Your task to perform on an android device: Go to Reddit.com Image 0: 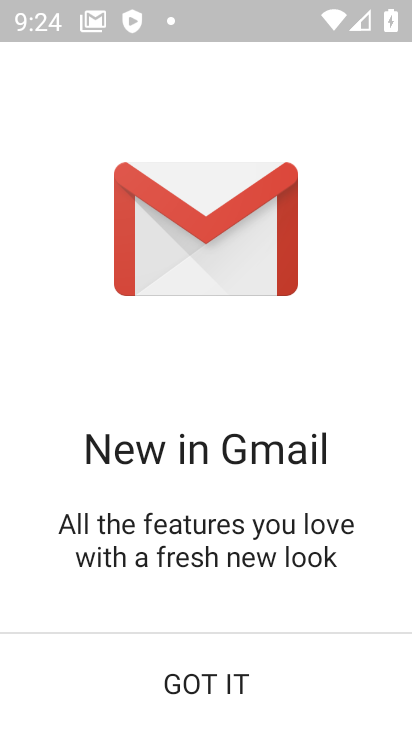
Step 0: press home button
Your task to perform on an android device: Go to Reddit.com Image 1: 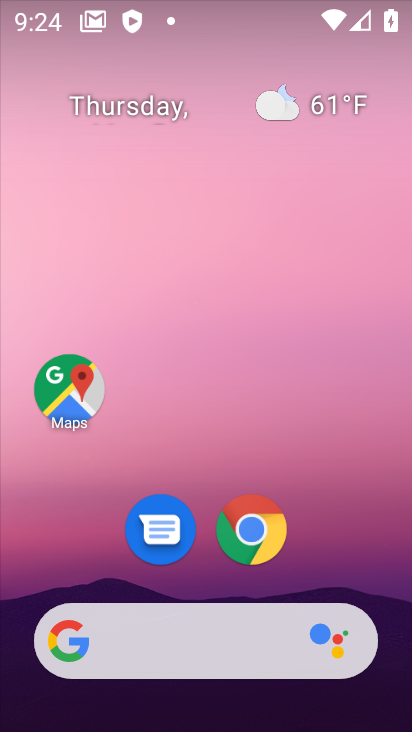
Step 1: click (262, 523)
Your task to perform on an android device: Go to Reddit.com Image 2: 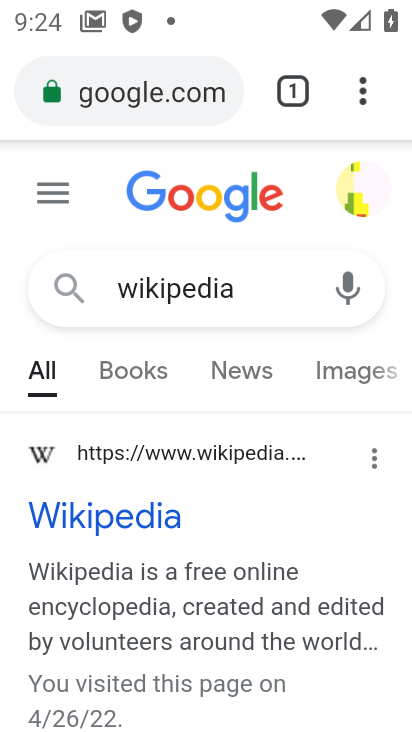
Step 2: click (252, 277)
Your task to perform on an android device: Go to Reddit.com Image 3: 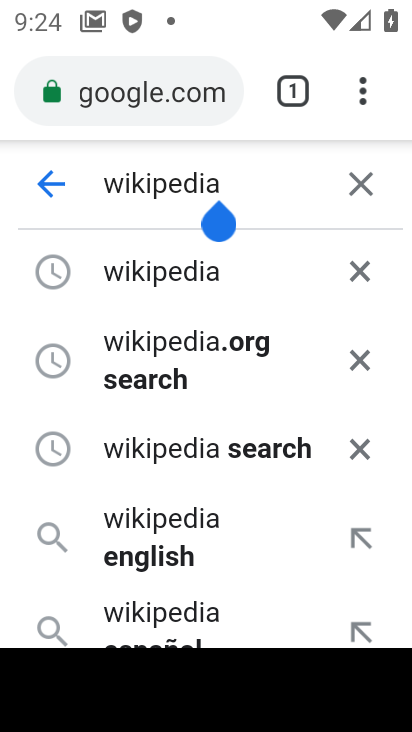
Step 3: click (364, 179)
Your task to perform on an android device: Go to Reddit.com Image 4: 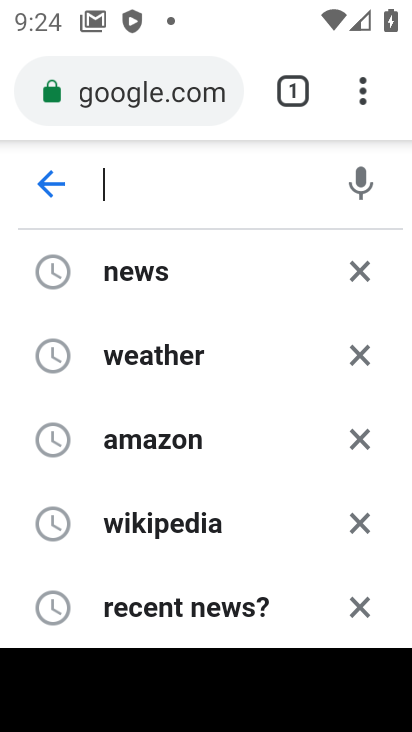
Step 4: click (228, 95)
Your task to perform on an android device: Go to Reddit.com Image 5: 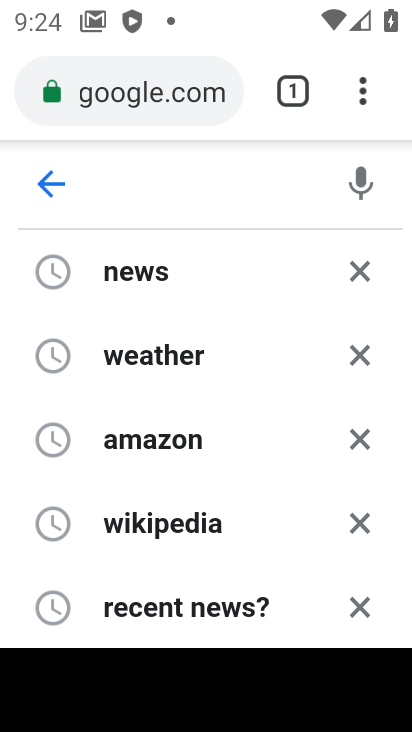
Step 5: click (224, 89)
Your task to perform on an android device: Go to Reddit.com Image 6: 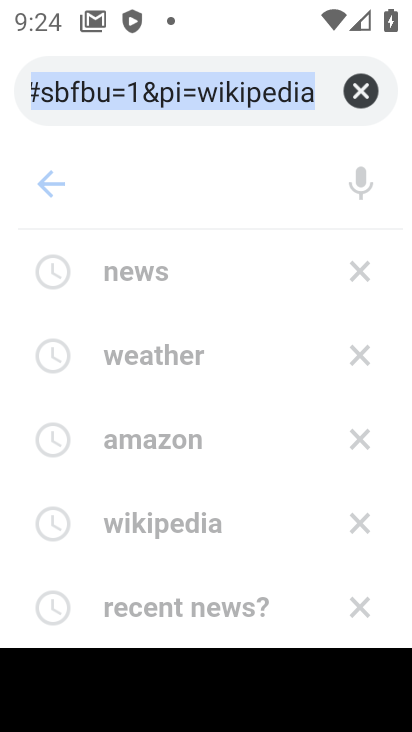
Step 6: click (381, 85)
Your task to perform on an android device: Go to Reddit.com Image 7: 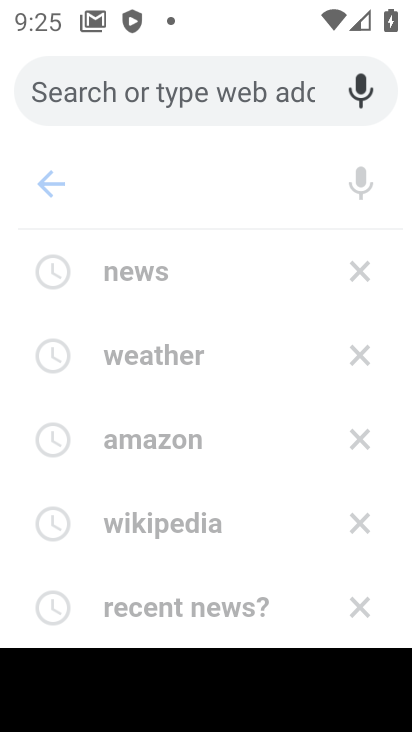
Step 7: type "Reddit.com"
Your task to perform on an android device: Go to Reddit.com Image 8: 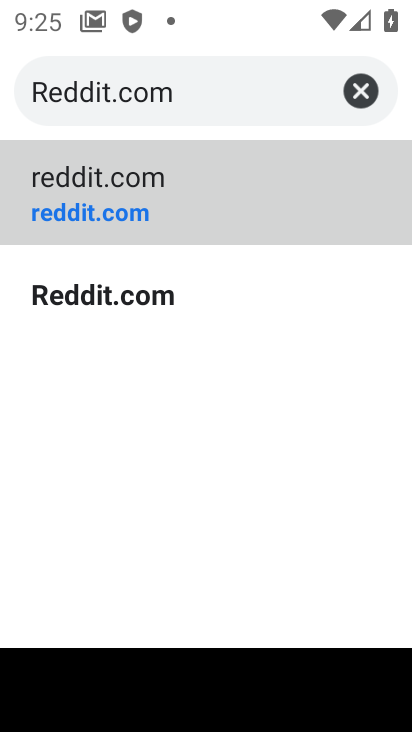
Step 8: click (101, 194)
Your task to perform on an android device: Go to Reddit.com Image 9: 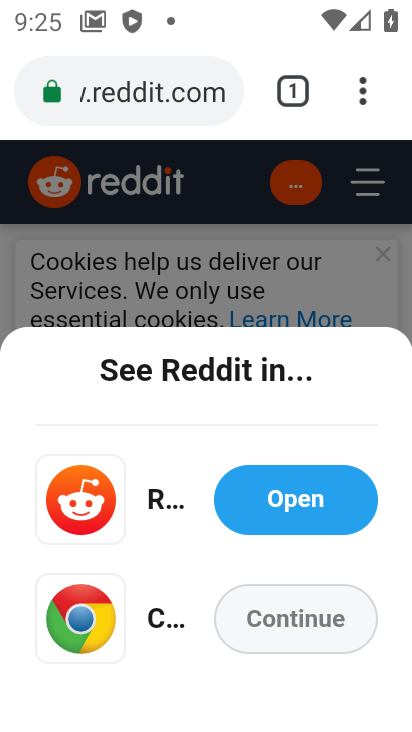
Step 9: task complete